Your task to perform on an android device: choose inbox layout in the gmail app Image 0: 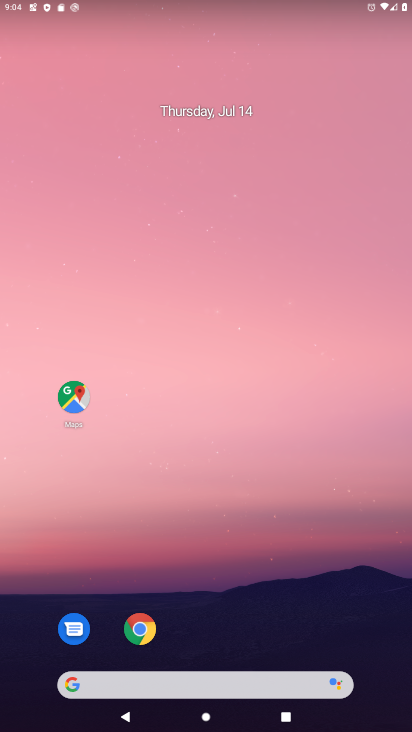
Step 0: drag from (245, 620) to (210, 27)
Your task to perform on an android device: choose inbox layout in the gmail app Image 1: 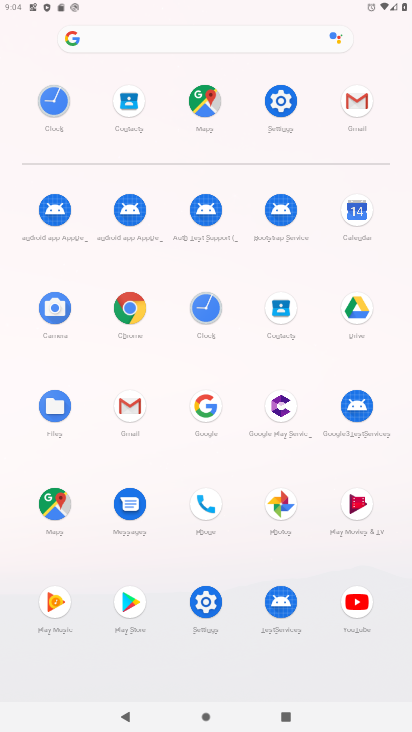
Step 1: click (352, 104)
Your task to perform on an android device: choose inbox layout in the gmail app Image 2: 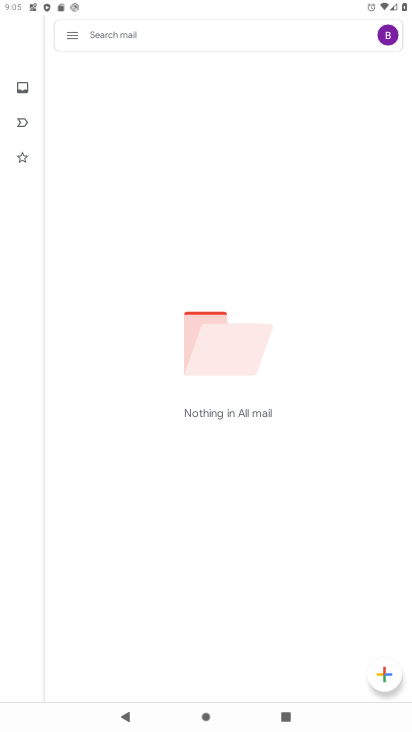
Step 2: click (69, 41)
Your task to perform on an android device: choose inbox layout in the gmail app Image 3: 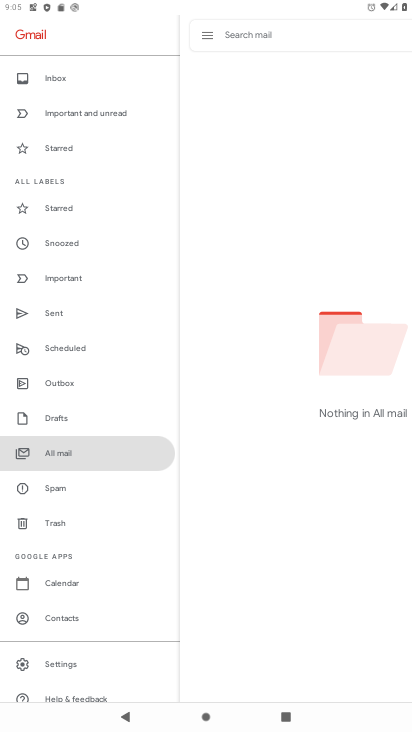
Step 3: click (68, 652)
Your task to perform on an android device: choose inbox layout in the gmail app Image 4: 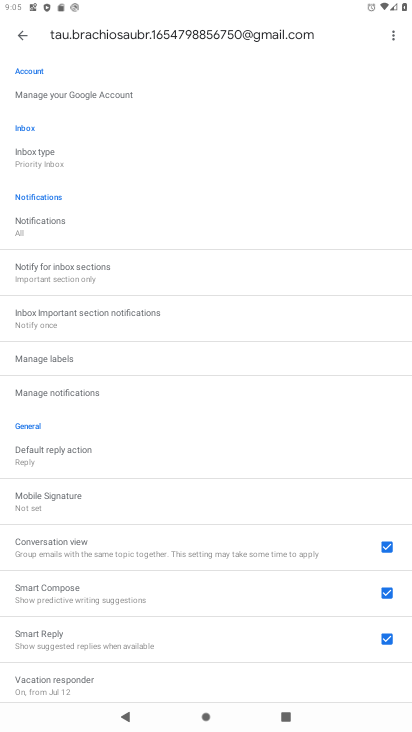
Step 4: click (58, 164)
Your task to perform on an android device: choose inbox layout in the gmail app Image 5: 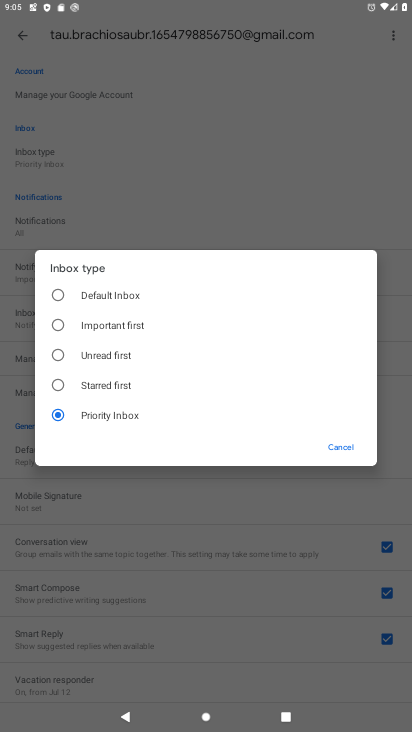
Step 5: click (91, 288)
Your task to perform on an android device: choose inbox layout in the gmail app Image 6: 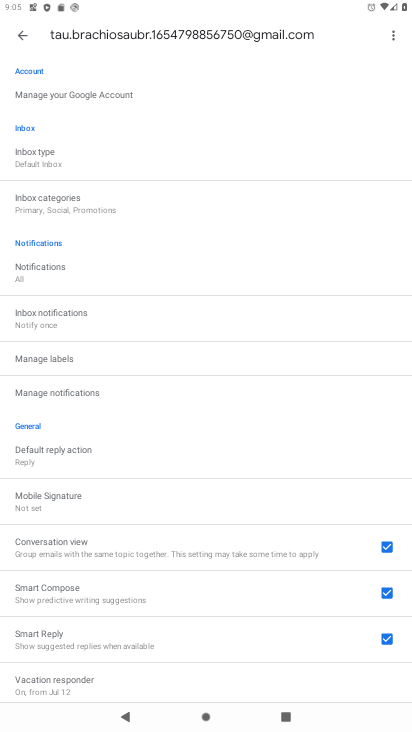
Step 6: task complete